Your task to perform on an android device: Open the web browser Image 0: 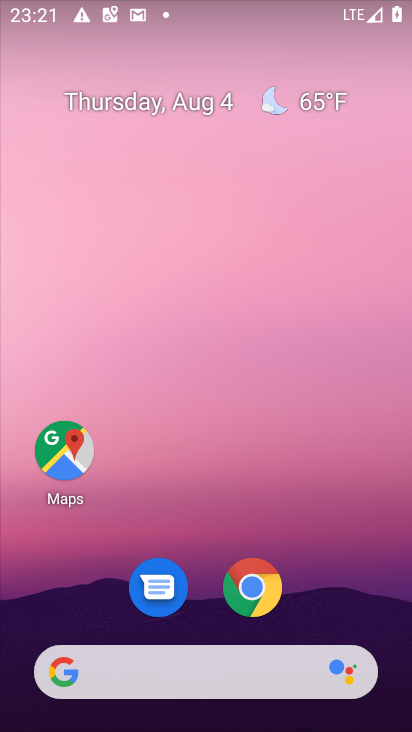
Step 0: drag from (206, 646) to (237, 399)
Your task to perform on an android device: Open the web browser Image 1: 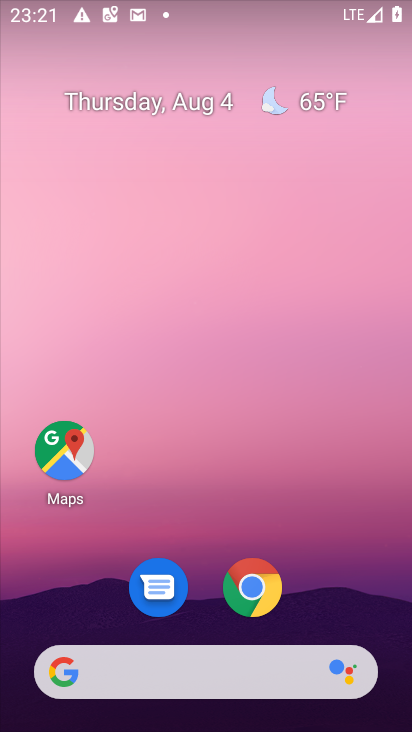
Step 1: click (259, 601)
Your task to perform on an android device: Open the web browser Image 2: 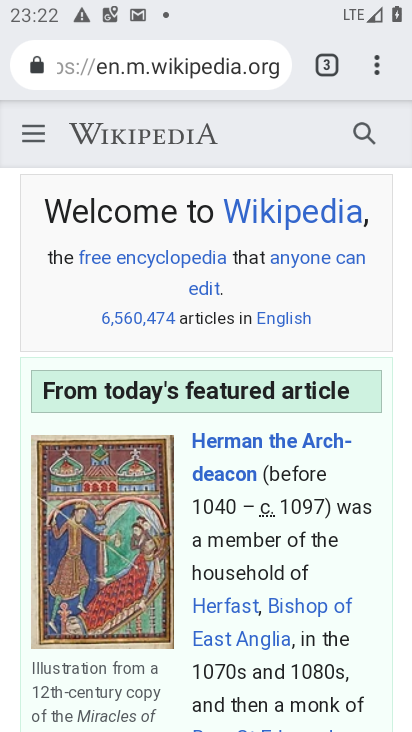
Step 2: task complete